Your task to perform on an android device: toggle wifi Image 0: 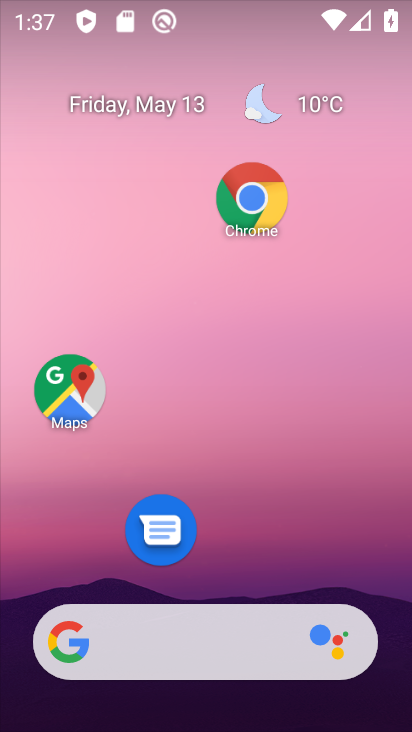
Step 0: drag from (232, 588) to (216, 7)
Your task to perform on an android device: toggle wifi Image 1: 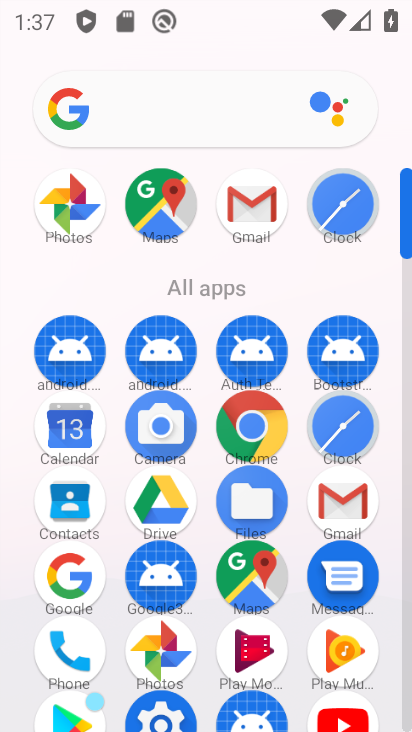
Step 1: click (155, 715)
Your task to perform on an android device: toggle wifi Image 2: 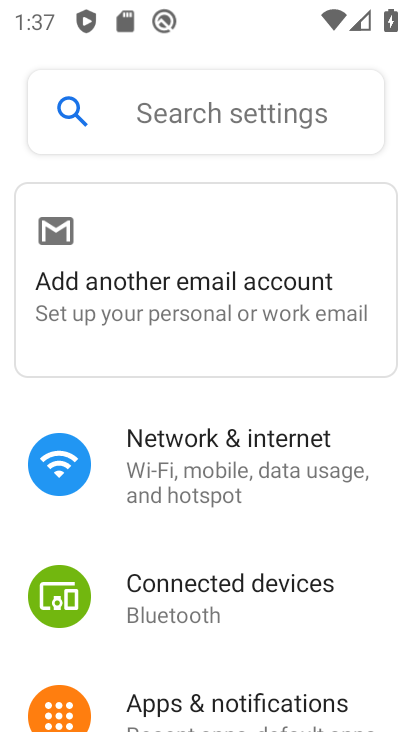
Step 2: click (137, 443)
Your task to perform on an android device: toggle wifi Image 3: 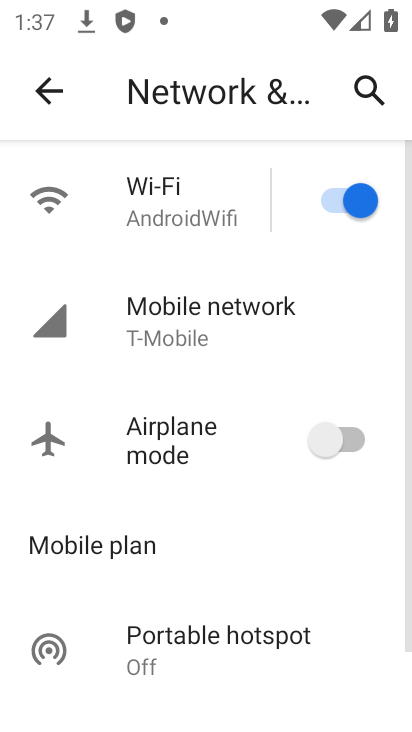
Step 3: click (336, 202)
Your task to perform on an android device: toggle wifi Image 4: 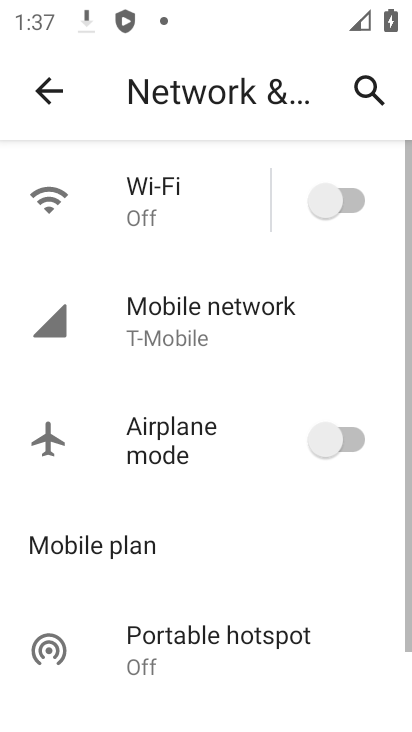
Step 4: task complete